Your task to perform on an android device: open chrome and create a bookmark for the current page Image 0: 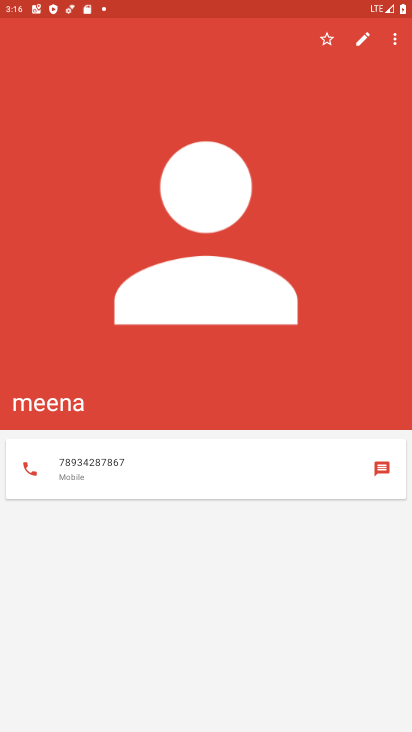
Step 0: press home button
Your task to perform on an android device: open chrome and create a bookmark for the current page Image 1: 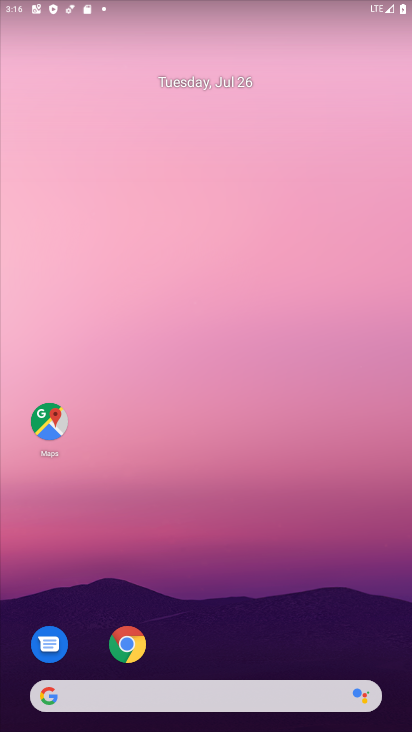
Step 1: click (130, 636)
Your task to perform on an android device: open chrome and create a bookmark for the current page Image 2: 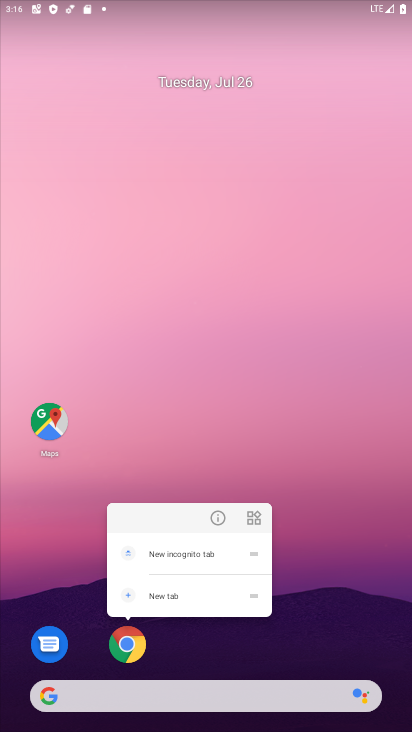
Step 2: click (130, 637)
Your task to perform on an android device: open chrome and create a bookmark for the current page Image 3: 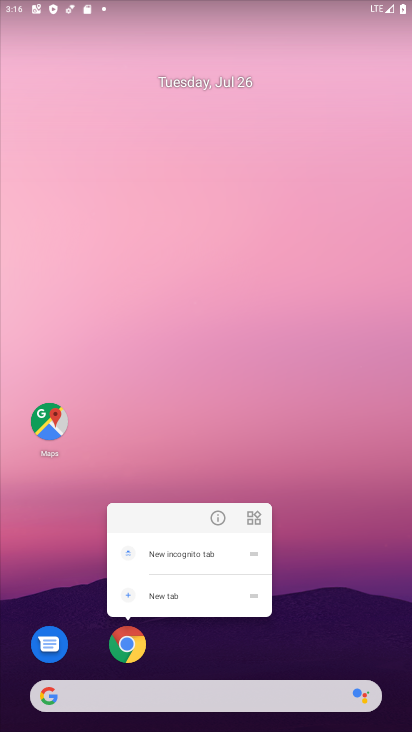
Step 3: click (130, 651)
Your task to perform on an android device: open chrome and create a bookmark for the current page Image 4: 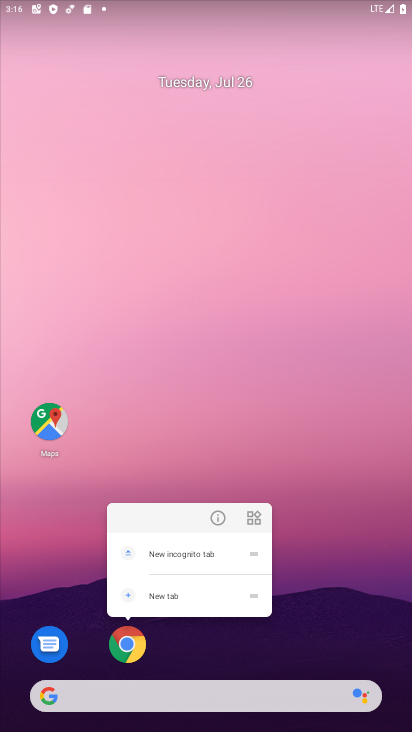
Step 4: click (129, 648)
Your task to perform on an android device: open chrome and create a bookmark for the current page Image 5: 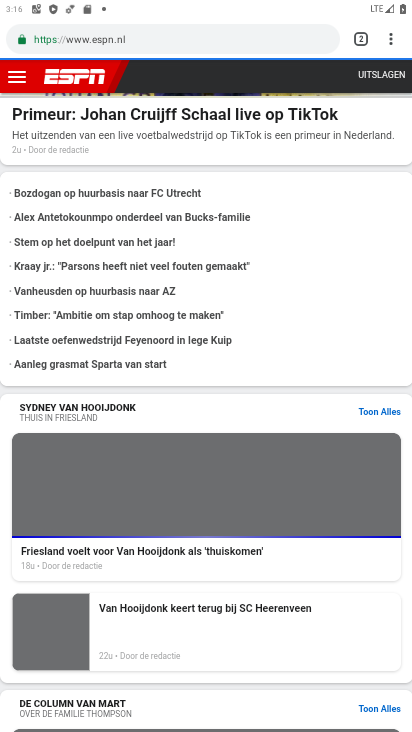
Step 5: click (390, 37)
Your task to perform on an android device: open chrome and create a bookmark for the current page Image 6: 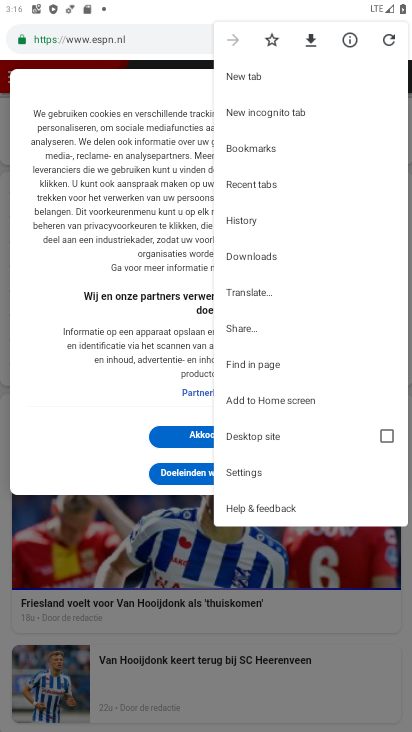
Step 6: click (270, 35)
Your task to perform on an android device: open chrome and create a bookmark for the current page Image 7: 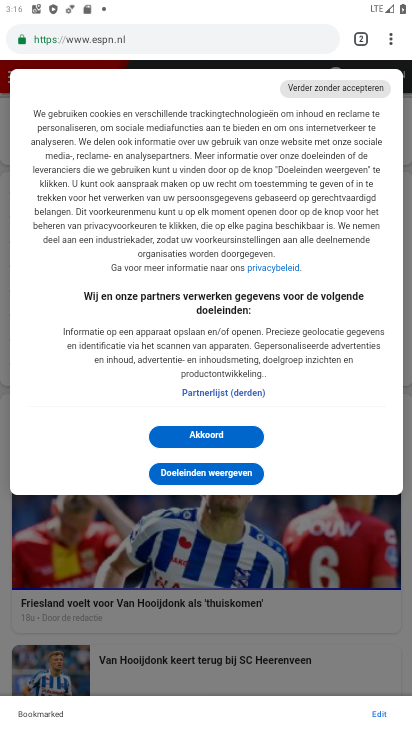
Step 7: task complete